Your task to perform on an android device: turn on showing notifications on the lock screen Image 0: 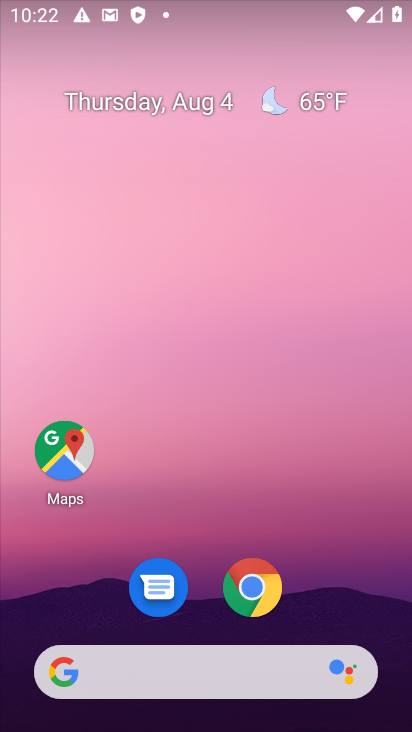
Step 0: drag from (244, 677) to (287, 297)
Your task to perform on an android device: turn on showing notifications on the lock screen Image 1: 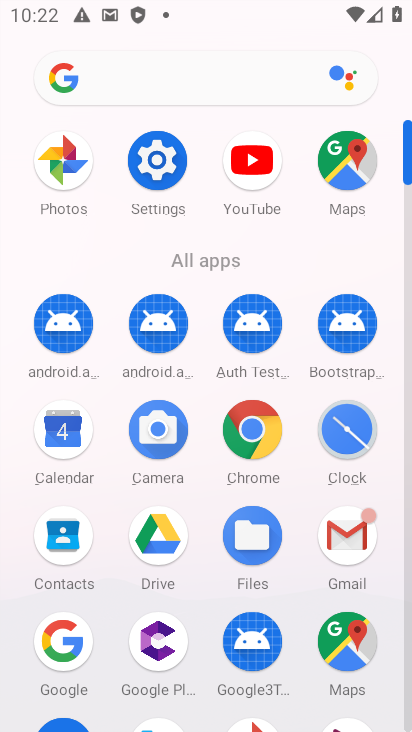
Step 1: click (164, 175)
Your task to perform on an android device: turn on showing notifications on the lock screen Image 2: 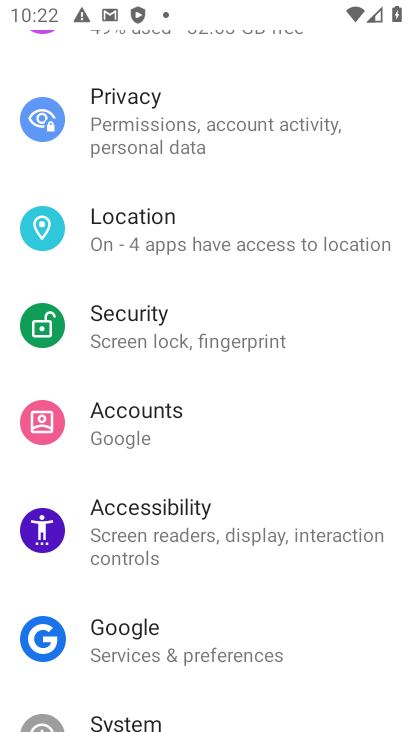
Step 2: drag from (210, 130) to (216, 678)
Your task to perform on an android device: turn on showing notifications on the lock screen Image 3: 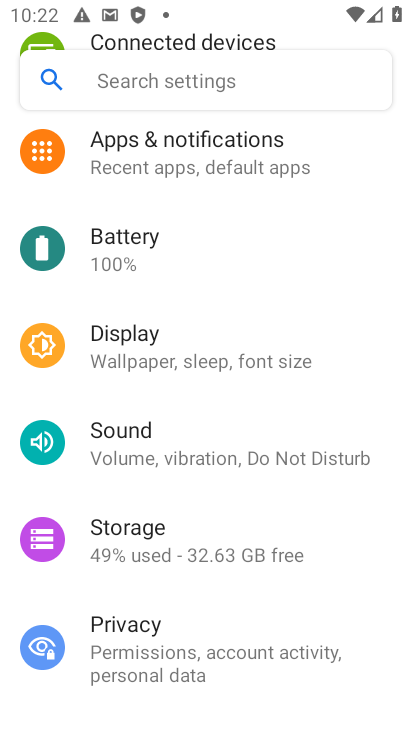
Step 3: drag from (172, 163) to (187, 601)
Your task to perform on an android device: turn on showing notifications on the lock screen Image 4: 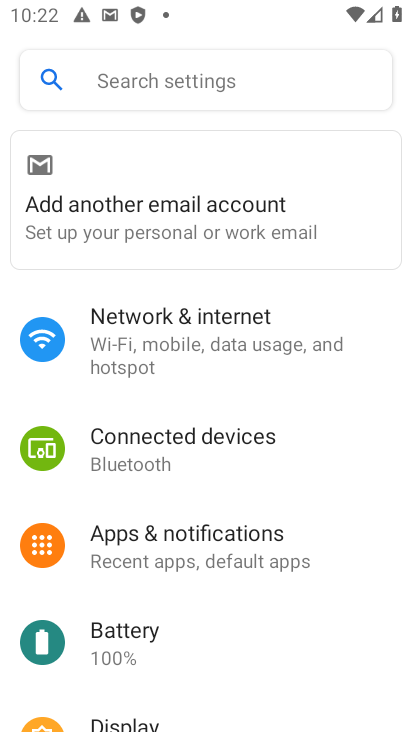
Step 4: click (180, 535)
Your task to perform on an android device: turn on showing notifications on the lock screen Image 5: 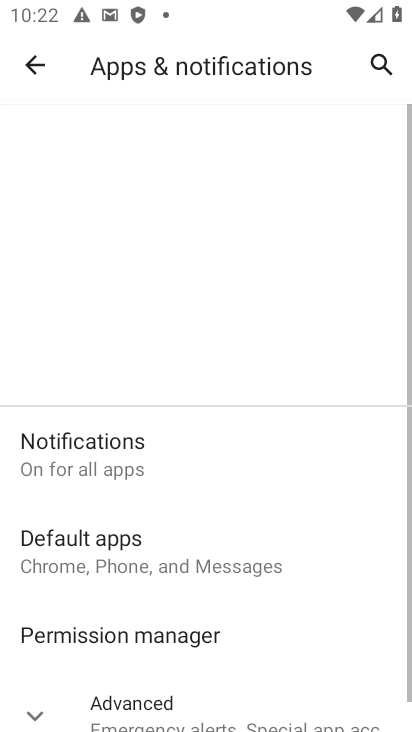
Step 5: drag from (234, 681) to (291, 234)
Your task to perform on an android device: turn on showing notifications on the lock screen Image 6: 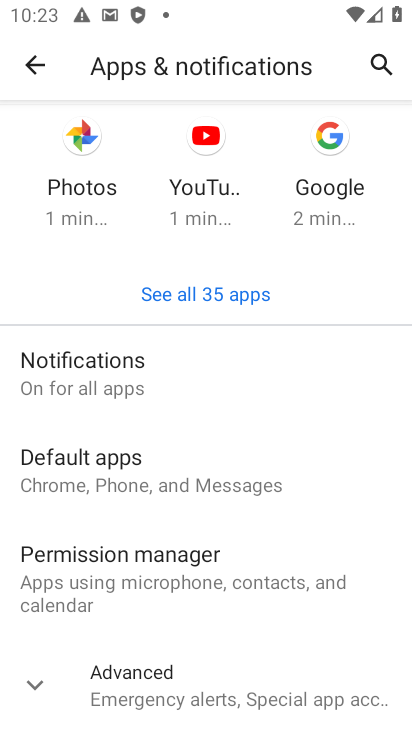
Step 6: click (92, 369)
Your task to perform on an android device: turn on showing notifications on the lock screen Image 7: 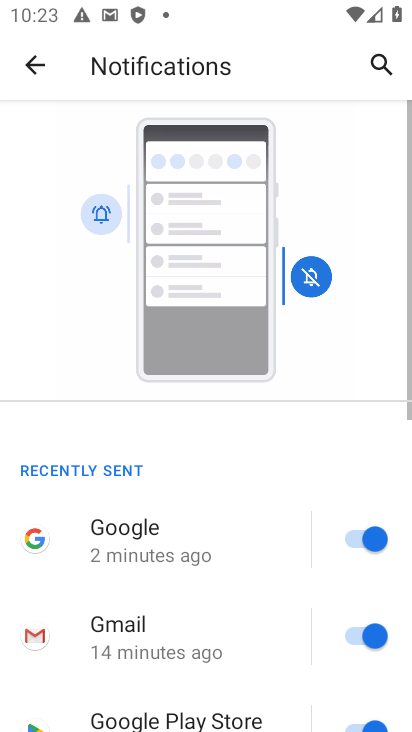
Step 7: drag from (254, 624) to (298, 131)
Your task to perform on an android device: turn on showing notifications on the lock screen Image 8: 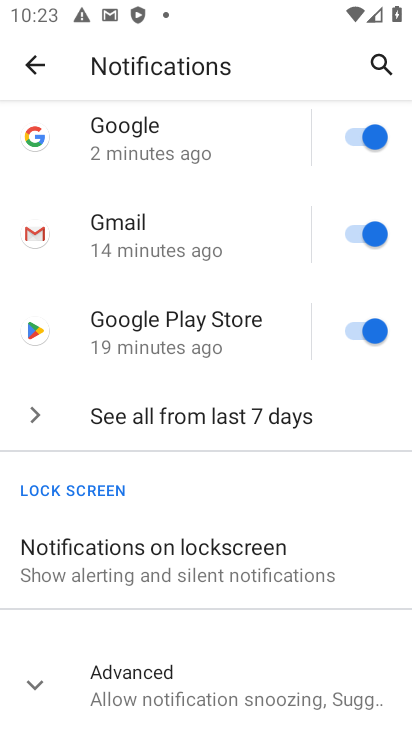
Step 8: click (170, 573)
Your task to perform on an android device: turn on showing notifications on the lock screen Image 9: 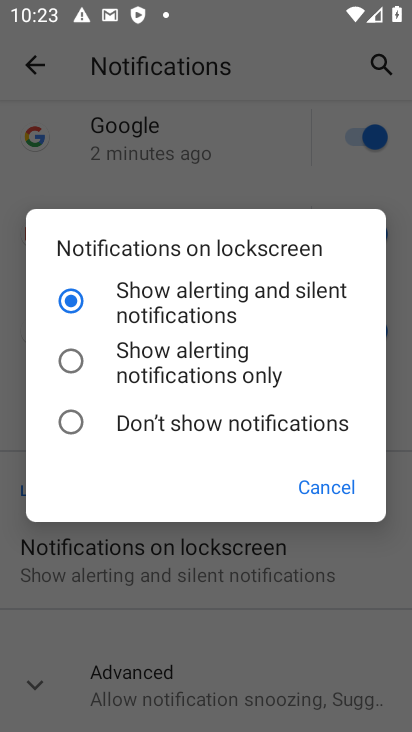
Step 9: task complete